Your task to perform on an android device: Open wifi settings Image 0: 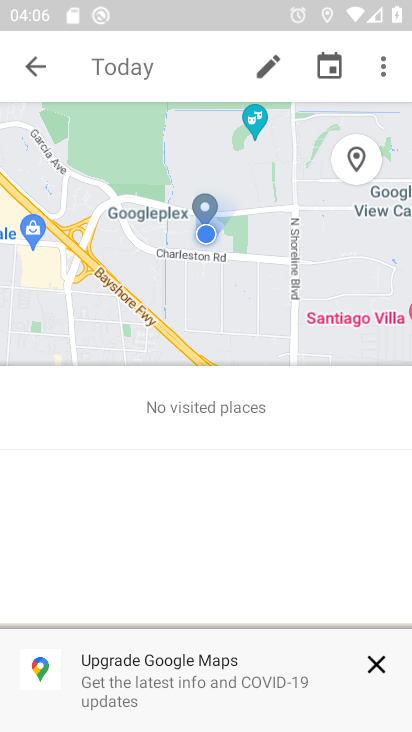
Step 0: press home button
Your task to perform on an android device: Open wifi settings Image 1: 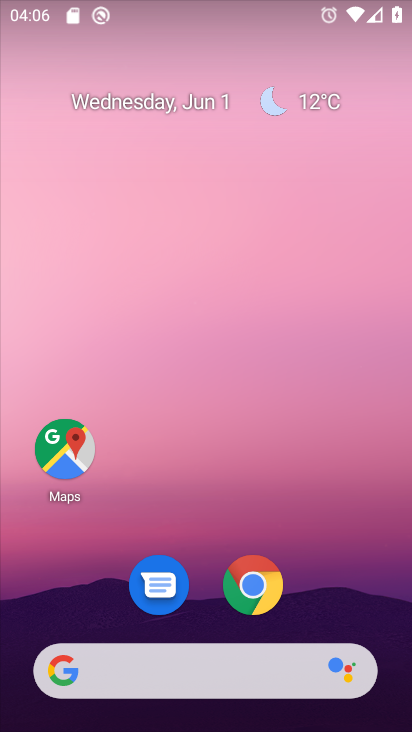
Step 1: drag from (207, 529) to (216, 25)
Your task to perform on an android device: Open wifi settings Image 2: 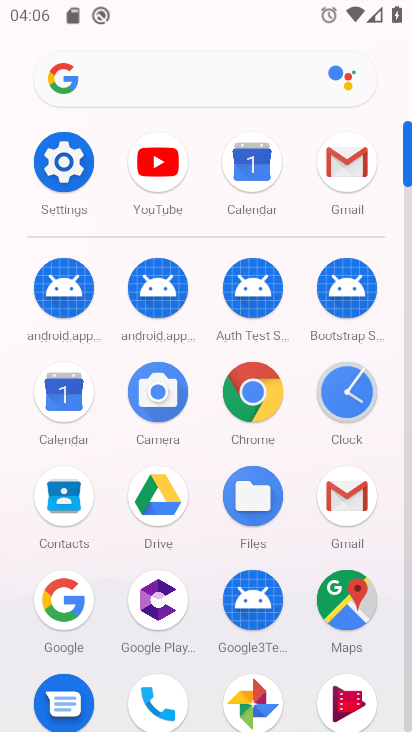
Step 2: click (75, 160)
Your task to perform on an android device: Open wifi settings Image 3: 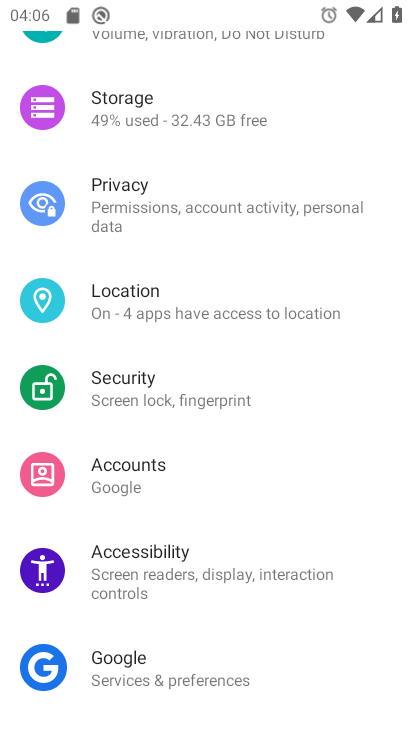
Step 3: drag from (193, 152) to (209, 626)
Your task to perform on an android device: Open wifi settings Image 4: 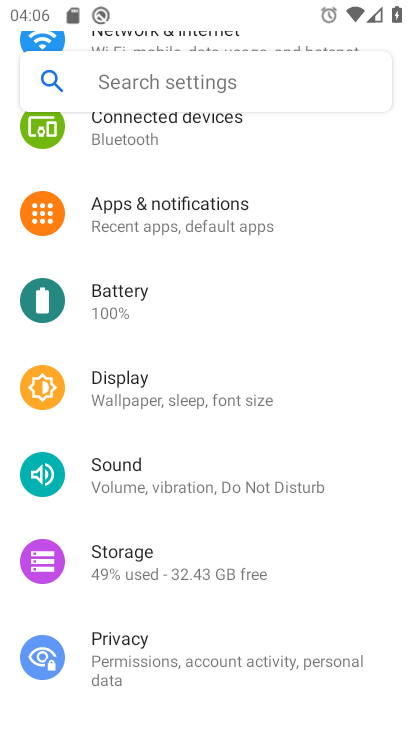
Step 4: drag from (228, 321) to (213, 603)
Your task to perform on an android device: Open wifi settings Image 5: 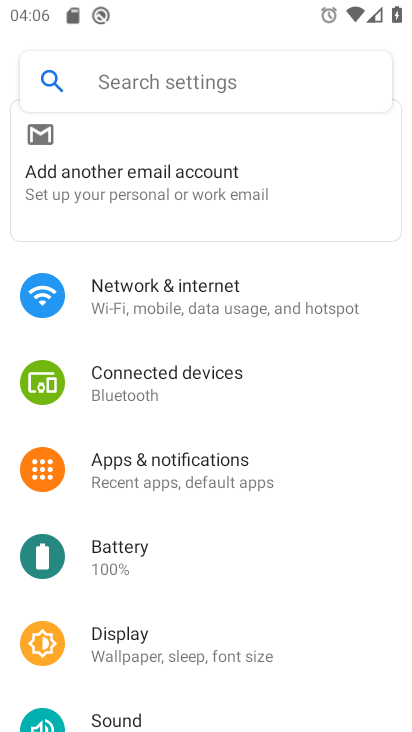
Step 5: click (207, 293)
Your task to perform on an android device: Open wifi settings Image 6: 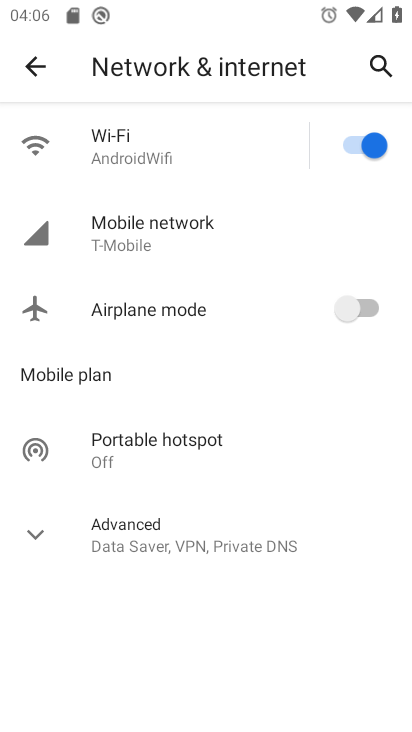
Step 6: click (168, 147)
Your task to perform on an android device: Open wifi settings Image 7: 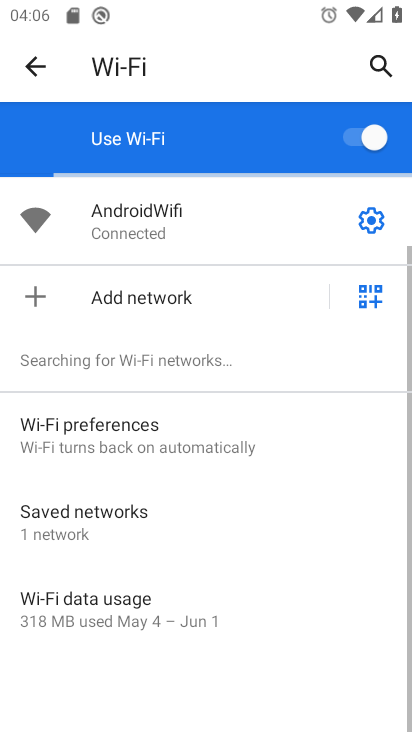
Step 7: task complete